Your task to perform on an android device: change the clock display to analog Image 0: 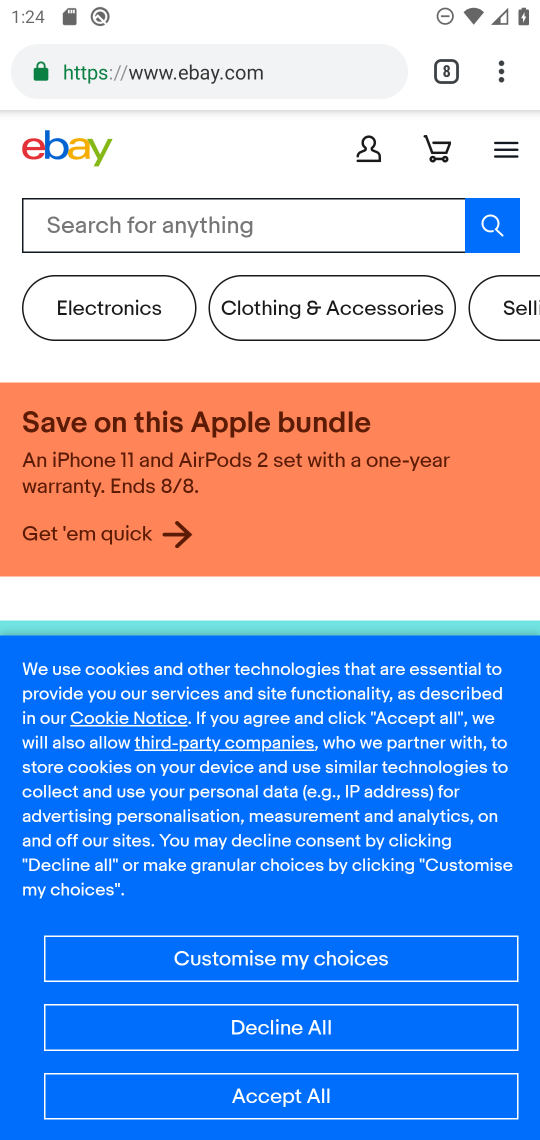
Step 0: press back button
Your task to perform on an android device: change the clock display to analog Image 1: 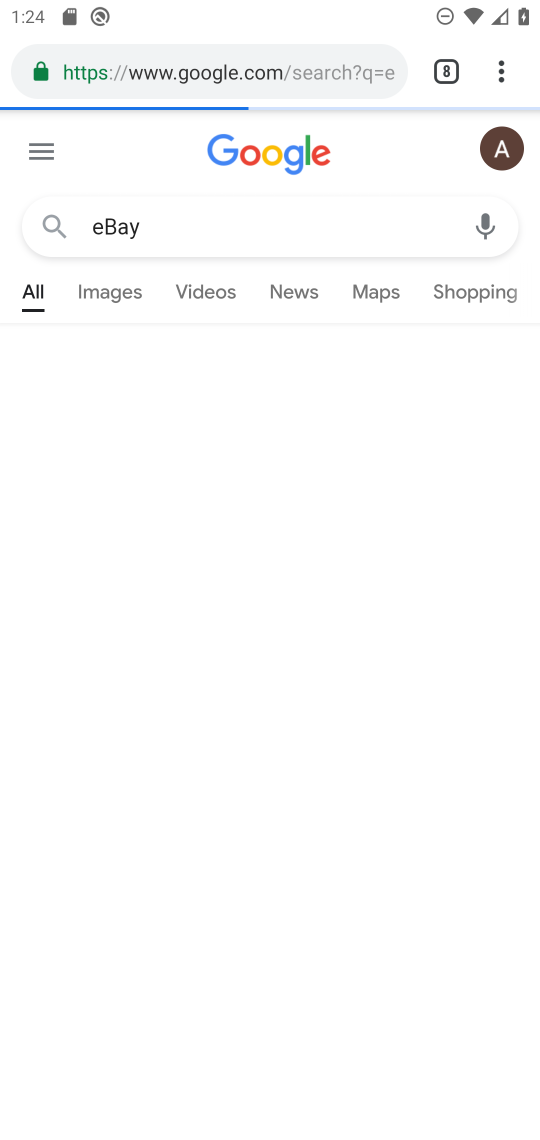
Step 1: press home button
Your task to perform on an android device: change the clock display to analog Image 2: 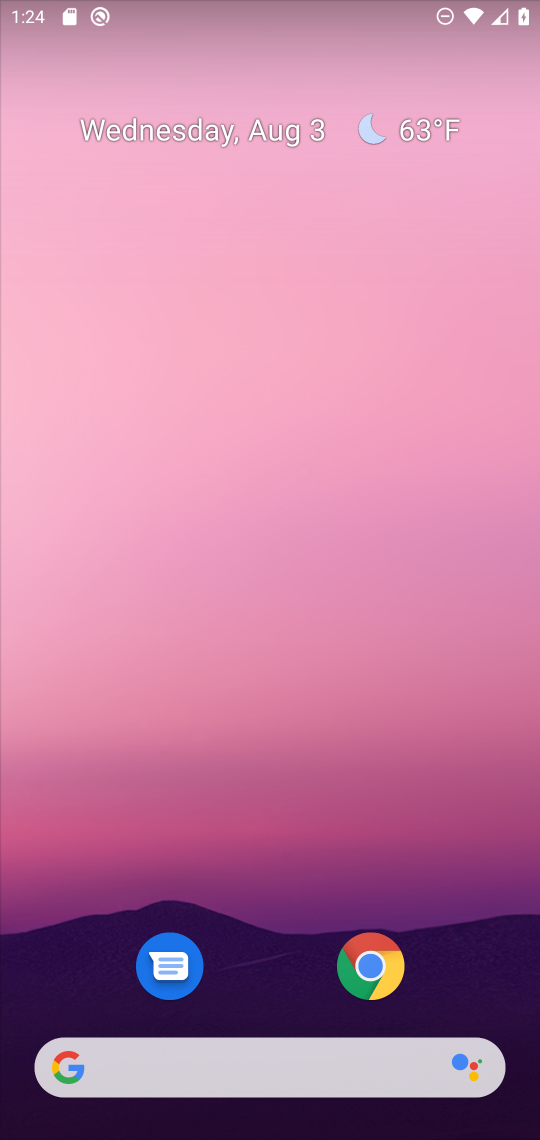
Step 2: drag from (240, 924) to (225, 216)
Your task to perform on an android device: change the clock display to analog Image 3: 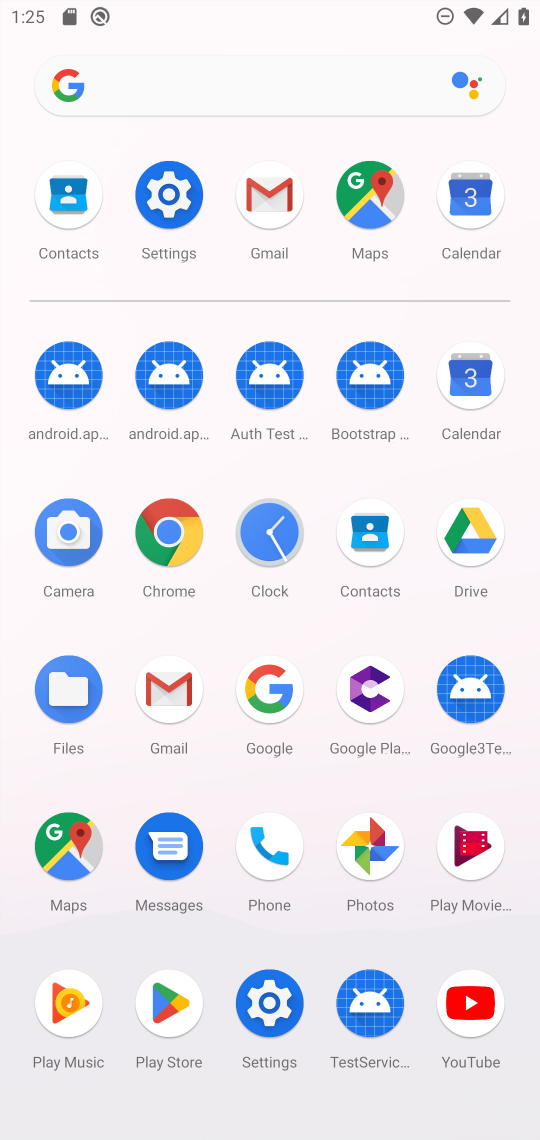
Step 3: click (260, 539)
Your task to perform on an android device: change the clock display to analog Image 4: 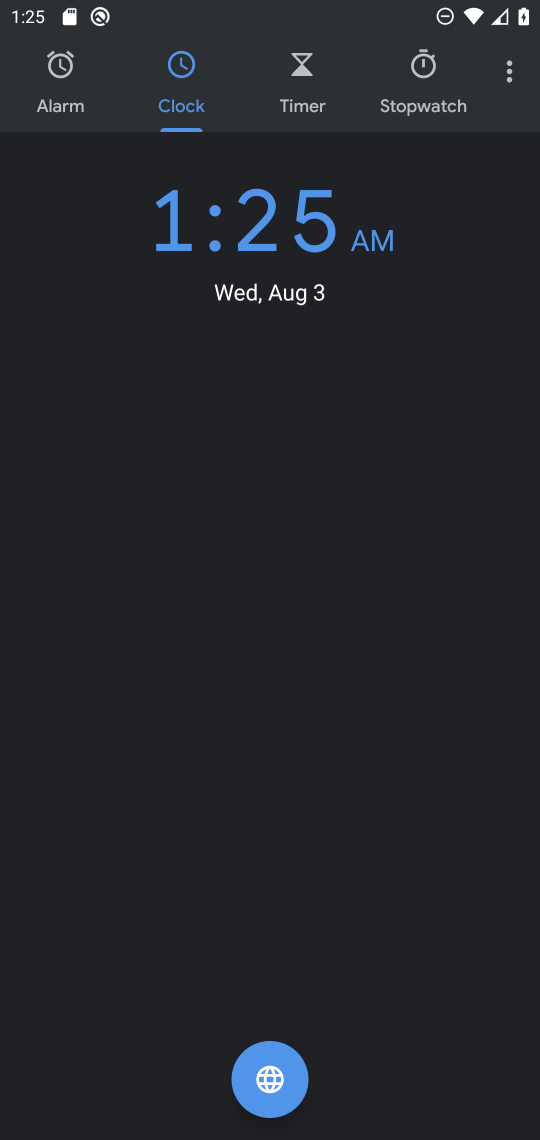
Step 4: click (502, 82)
Your task to perform on an android device: change the clock display to analog Image 5: 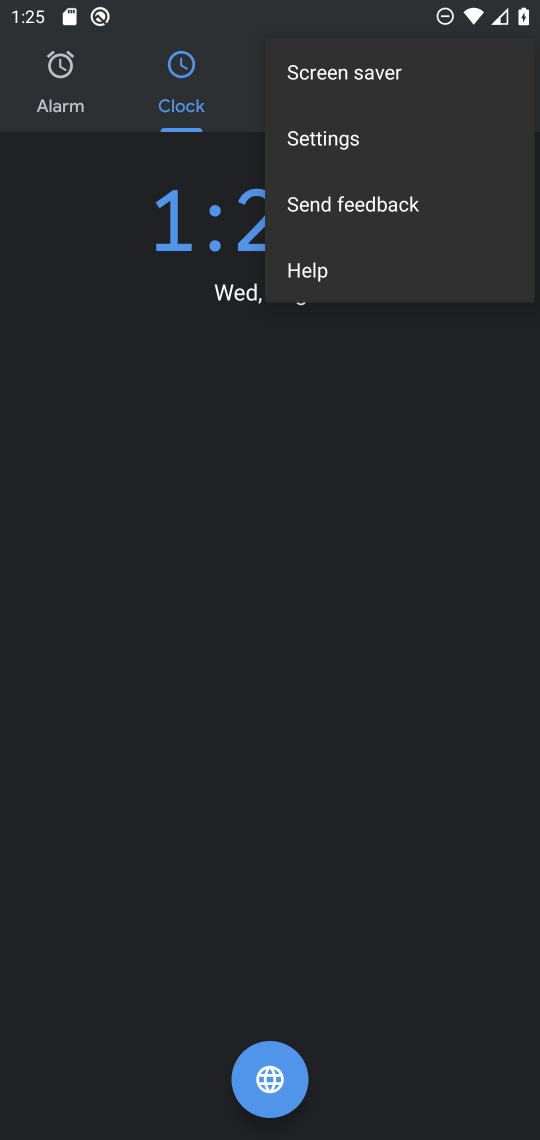
Step 5: click (381, 139)
Your task to perform on an android device: change the clock display to analog Image 6: 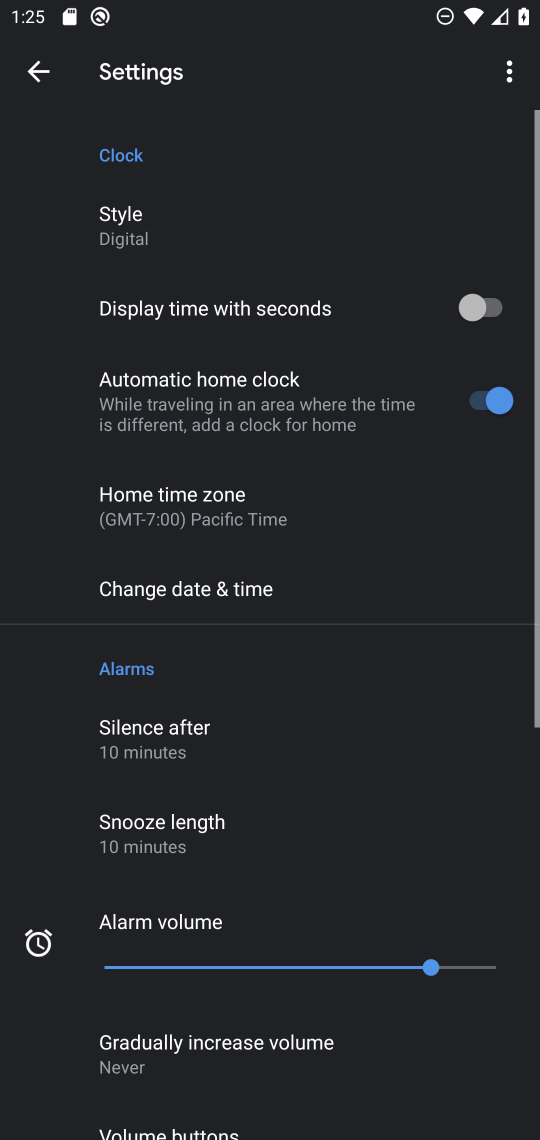
Step 6: click (178, 222)
Your task to perform on an android device: change the clock display to analog Image 7: 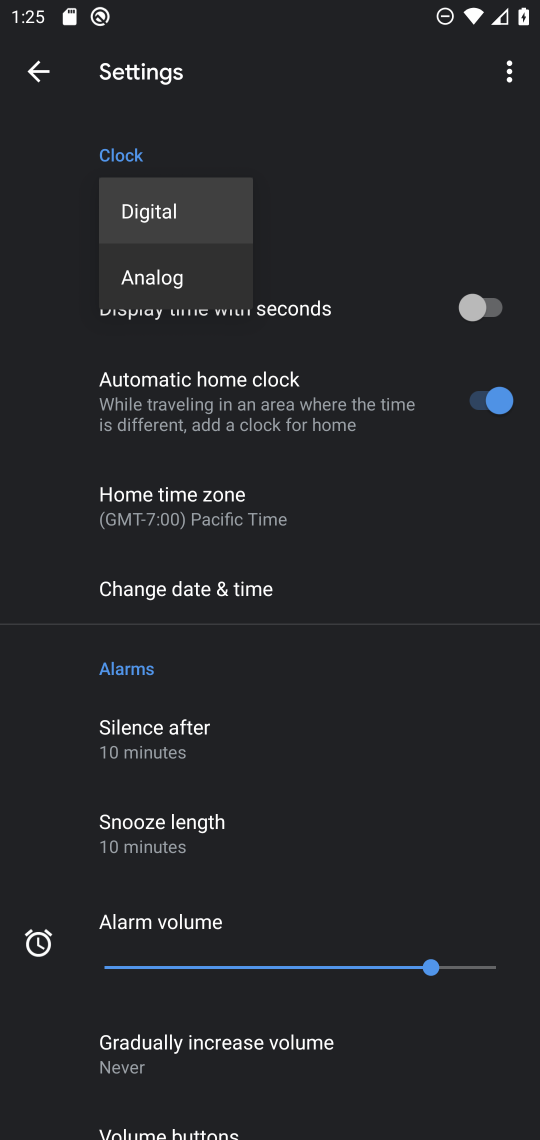
Step 7: click (178, 290)
Your task to perform on an android device: change the clock display to analog Image 8: 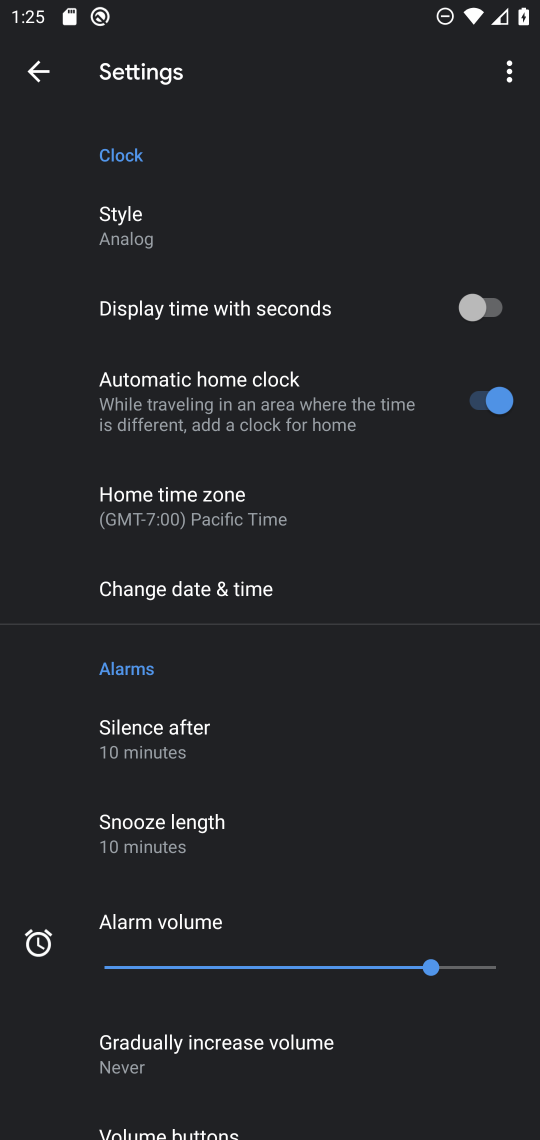
Step 8: task complete